Your task to perform on an android device: Open Android settings Image 0: 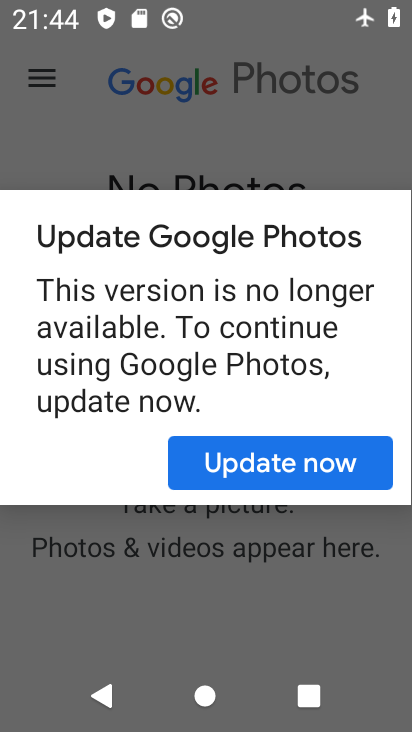
Step 0: press home button
Your task to perform on an android device: Open Android settings Image 1: 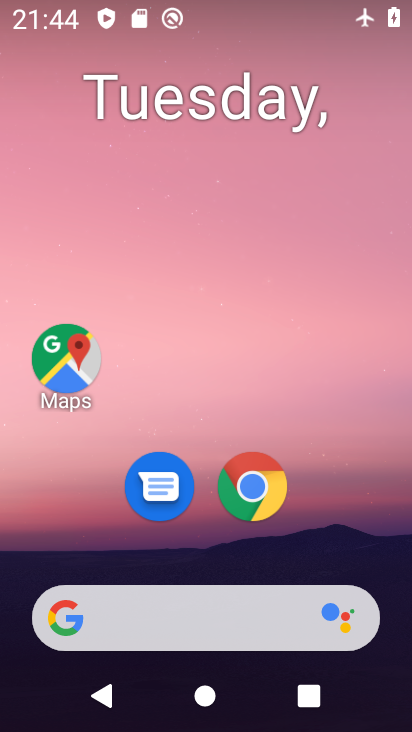
Step 1: drag from (374, 549) to (361, 160)
Your task to perform on an android device: Open Android settings Image 2: 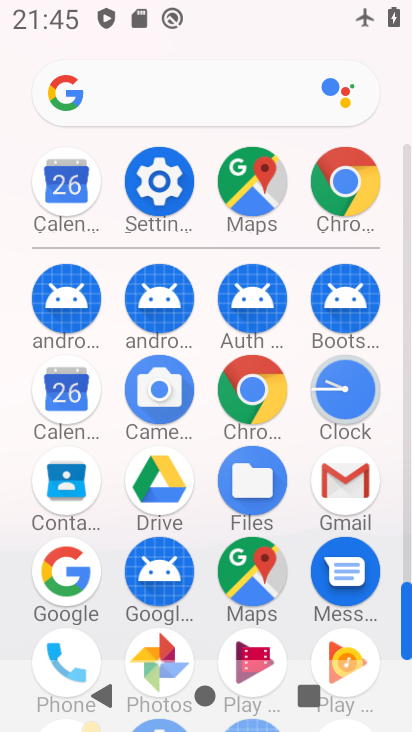
Step 2: click (162, 186)
Your task to perform on an android device: Open Android settings Image 3: 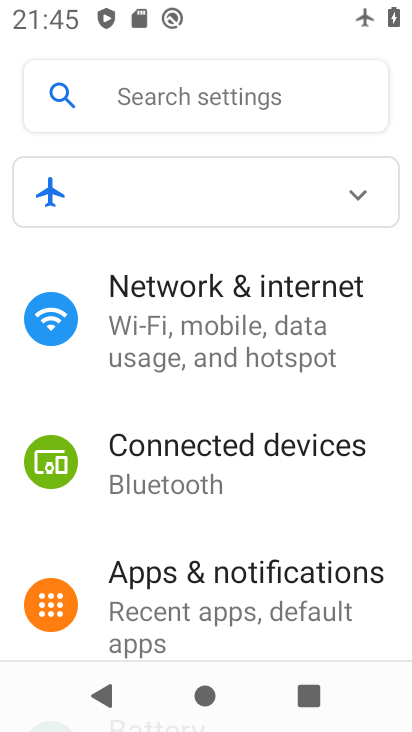
Step 3: drag from (391, 409) to (390, 368)
Your task to perform on an android device: Open Android settings Image 4: 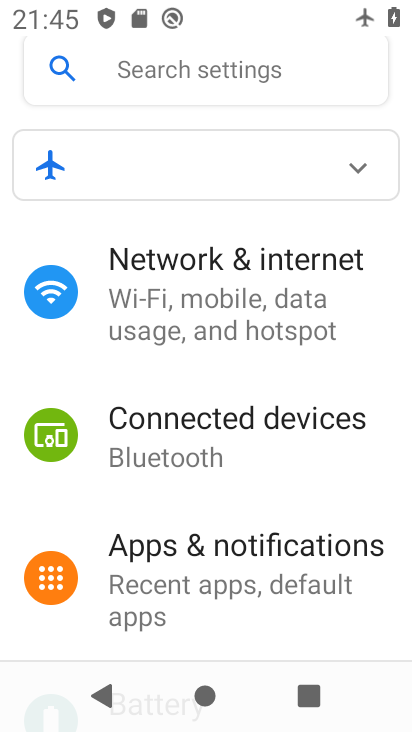
Step 4: drag from (385, 429) to (385, 373)
Your task to perform on an android device: Open Android settings Image 5: 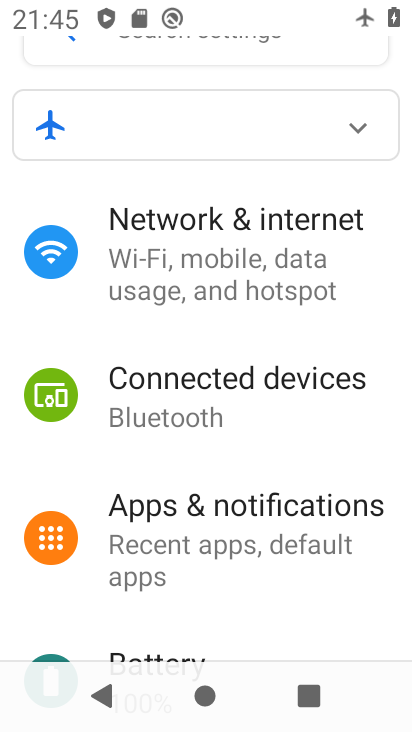
Step 5: drag from (375, 424) to (381, 371)
Your task to perform on an android device: Open Android settings Image 6: 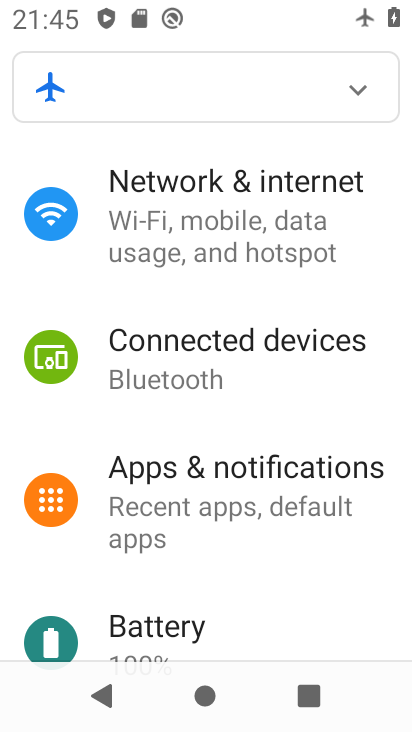
Step 6: drag from (372, 406) to (372, 356)
Your task to perform on an android device: Open Android settings Image 7: 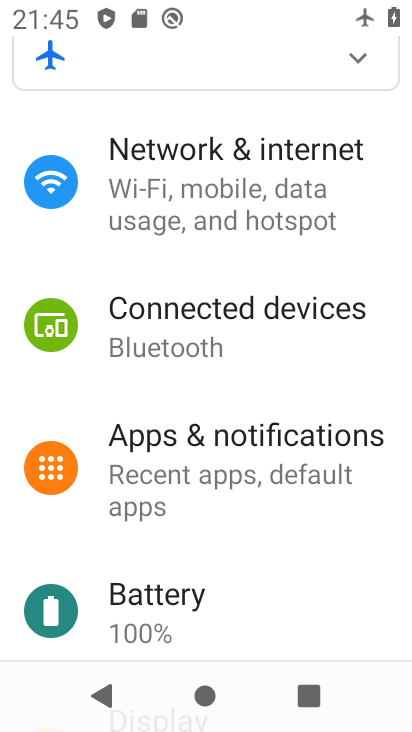
Step 7: drag from (376, 460) to (381, 400)
Your task to perform on an android device: Open Android settings Image 8: 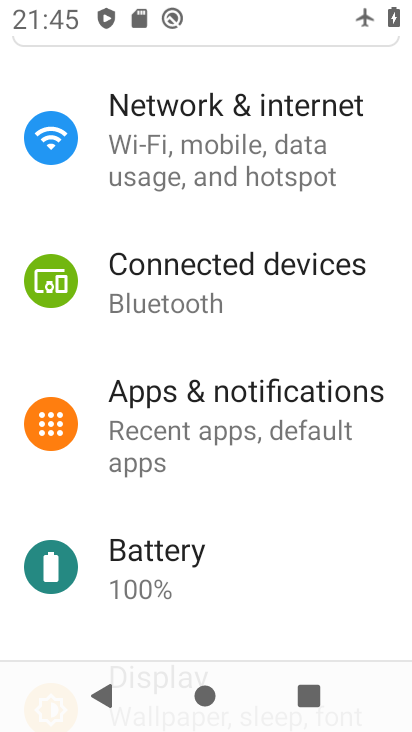
Step 8: drag from (368, 442) to (371, 390)
Your task to perform on an android device: Open Android settings Image 9: 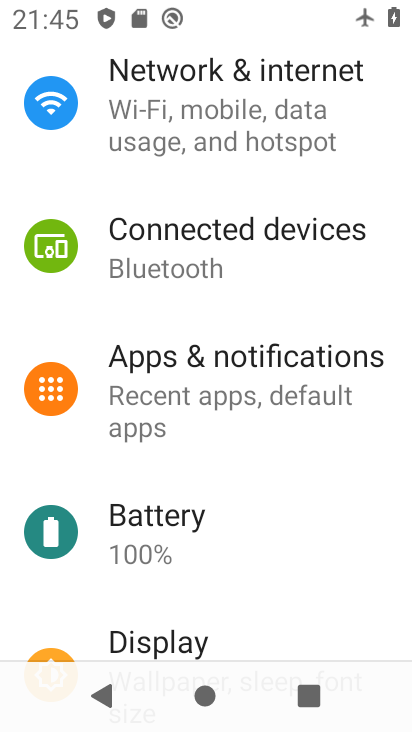
Step 9: drag from (353, 454) to (358, 391)
Your task to perform on an android device: Open Android settings Image 10: 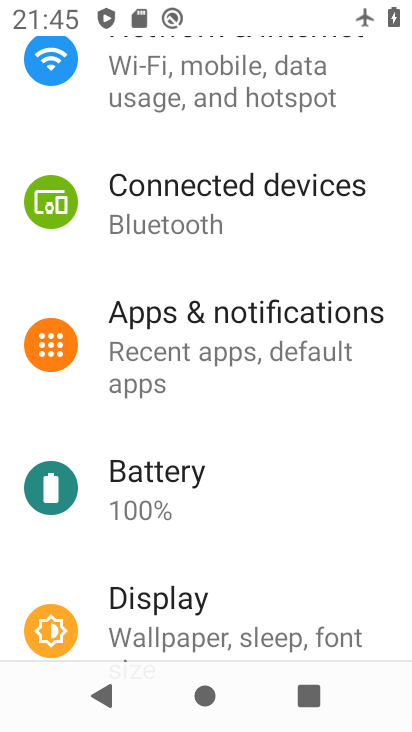
Step 10: drag from (356, 452) to (357, 385)
Your task to perform on an android device: Open Android settings Image 11: 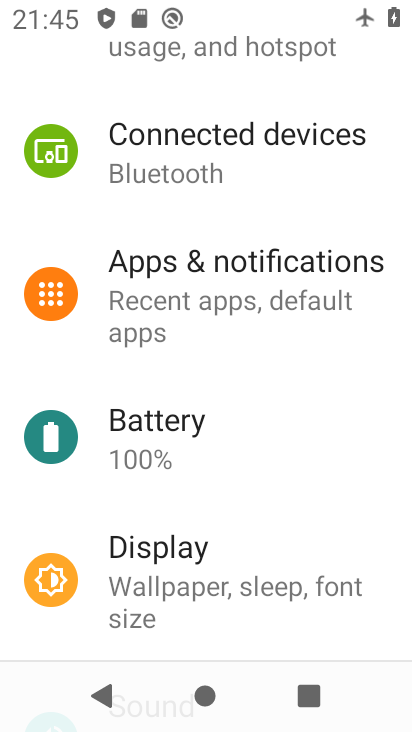
Step 11: drag from (352, 453) to (356, 382)
Your task to perform on an android device: Open Android settings Image 12: 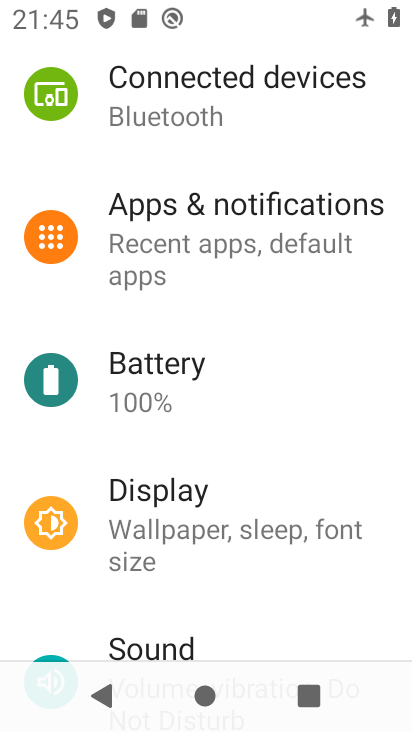
Step 12: drag from (342, 460) to (344, 405)
Your task to perform on an android device: Open Android settings Image 13: 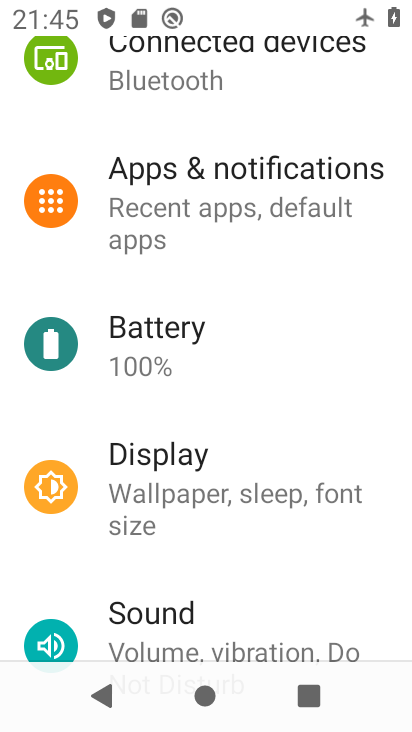
Step 13: drag from (327, 537) to (328, 467)
Your task to perform on an android device: Open Android settings Image 14: 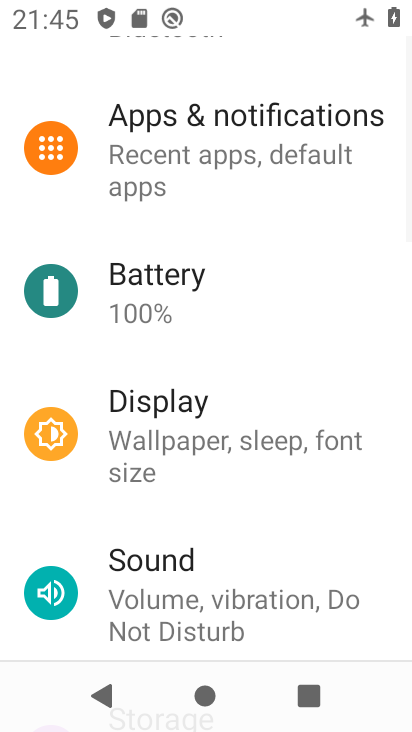
Step 14: drag from (314, 513) to (323, 445)
Your task to perform on an android device: Open Android settings Image 15: 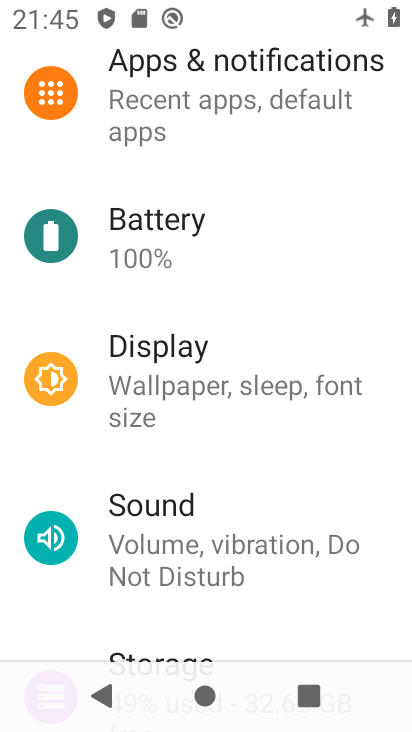
Step 15: drag from (317, 505) to (320, 438)
Your task to perform on an android device: Open Android settings Image 16: 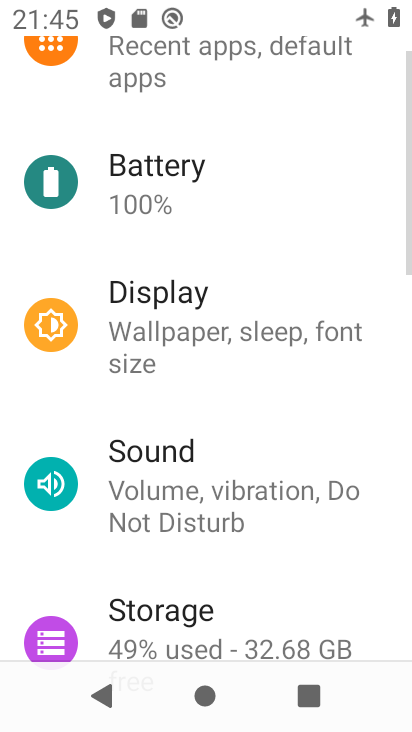
Step 16: drag from (321, 550) to (327, 473)
Your task to perform on an android device: Open Android settings Image 17: 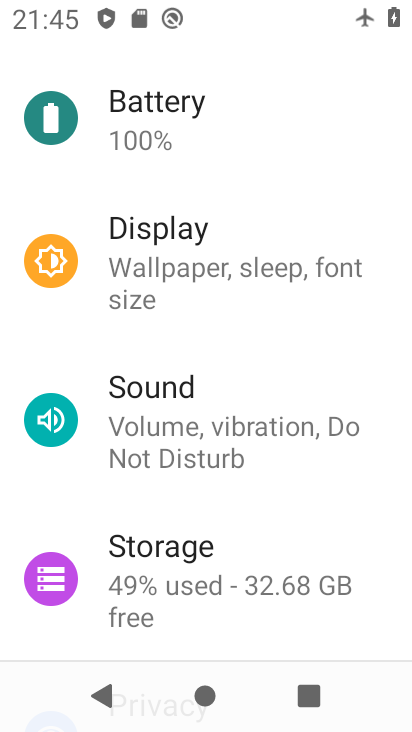
Step 17: drag from (383, 529) to (383, 461)
Your task to perform on an android device: Open Android settings Image 18: 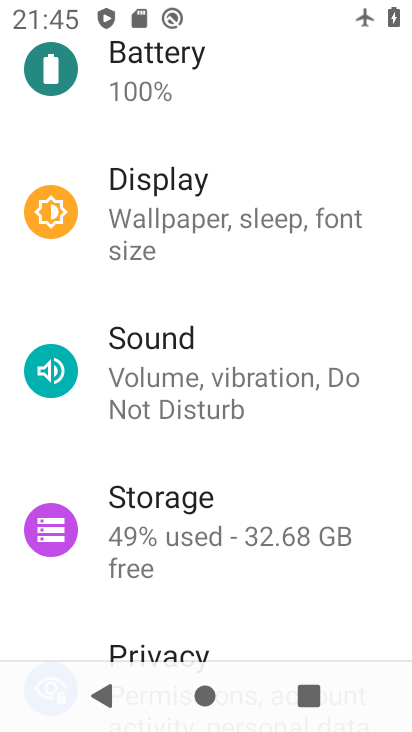
Step 18: drag from (373, 596) to (369, 509)
Your task to perform on an android device: Open Android settings Image 19: 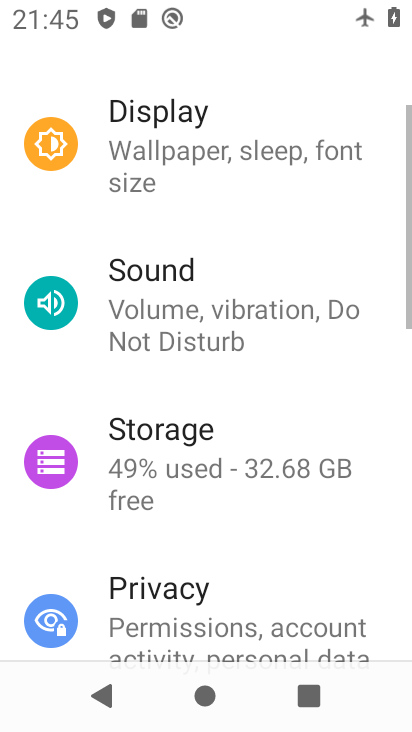
Step 19: drag from (354, 578) to (359, 481)
Your task to perform on an android device: Open Android settings Image 20: 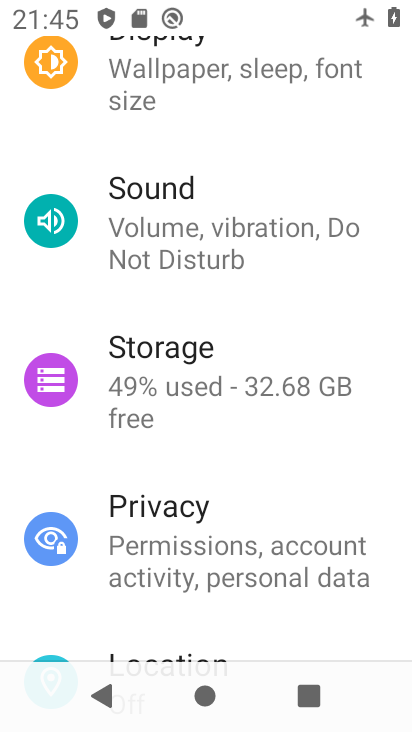
Step 20: drag from (372, 604) to (371, 509)
Your task to perform on an android device: Open Android settings Image 21: 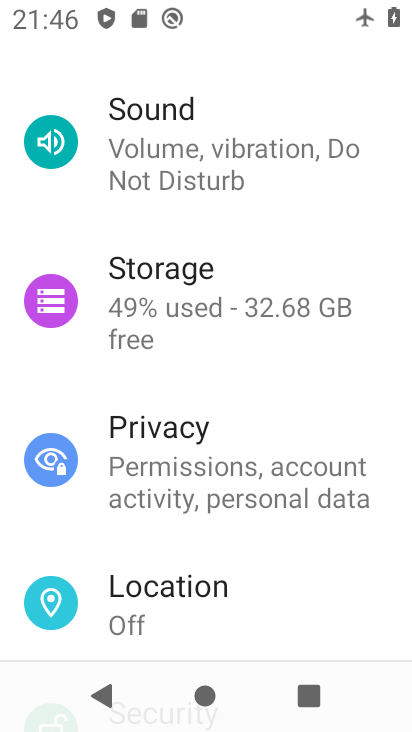
Step 21: drag from (350, 578) to (353, 525)
Your task to perform on an android device: Open Android settings Image 22: 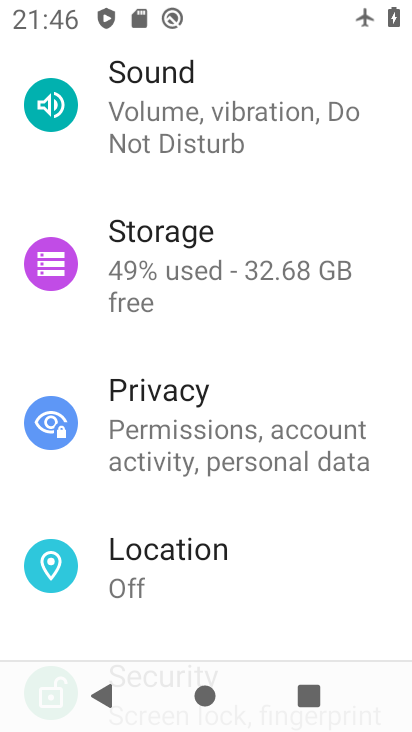
Step 22: drag from (334, 571) to (352, 488)
Your task to perform on an android device: Open Android settings Image 23: 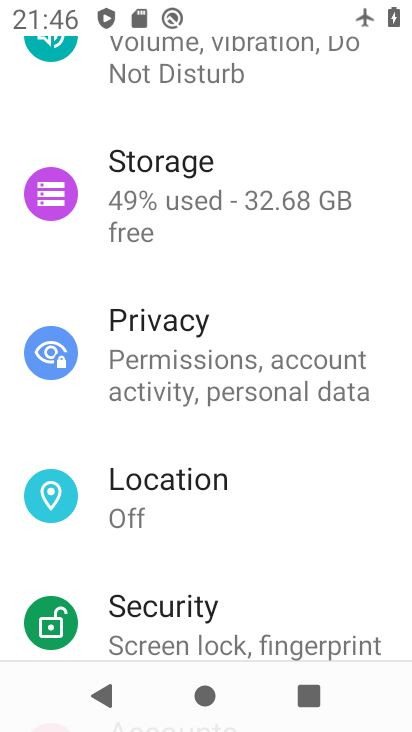
Step 23: drag from (347, 603) to (357, 498)
Your task to perform on an android device: Open Android settings Image 24: 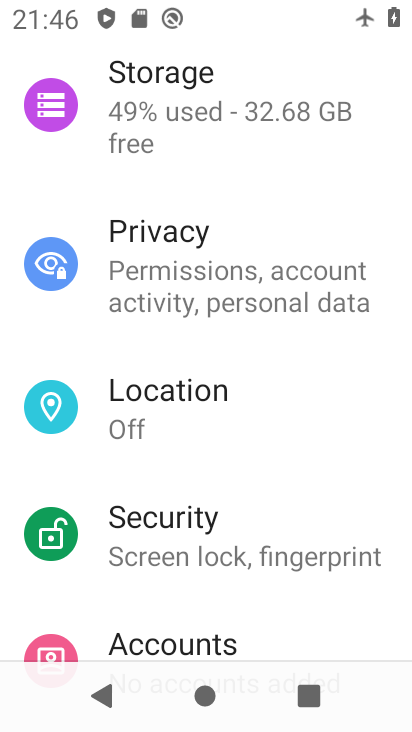
Step 24: drag from (358, 498) to (357, 419)
Your task to perform on an android device: Open Android settings Image 25: 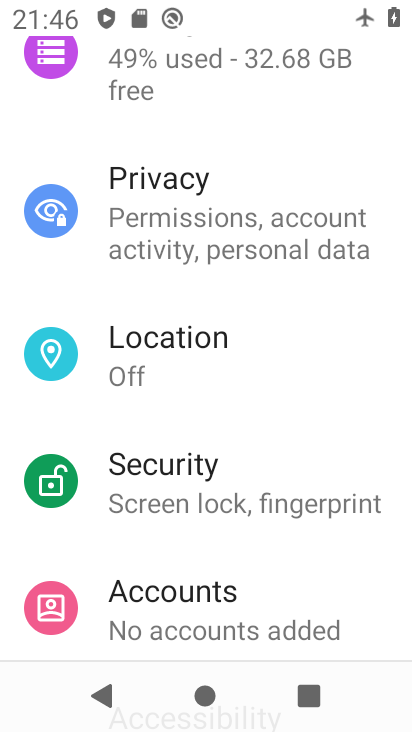
Step 25: drag from (333, 534) to (366, 337)
Your task to perform on an android device: Open Android settings Image 26: 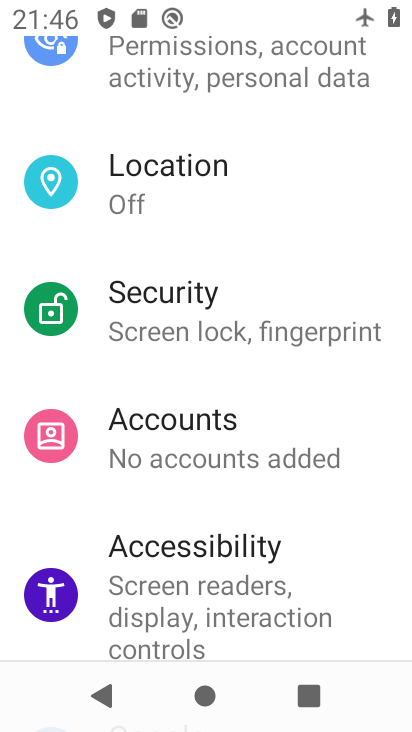
Step 26: drag from (341, 520) to (369, 377)
Your task to perform on an android device: Open Android settings Image 27: 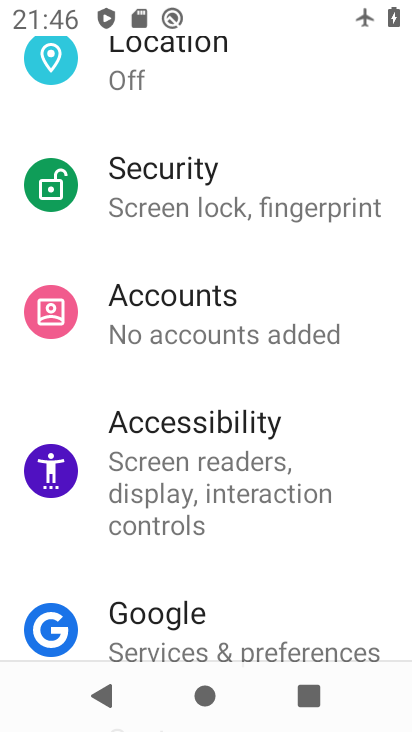
Step 27: drag from (341, 501) to (365, 388)
Your task to perform on an android device: Open Android settings Image 28: 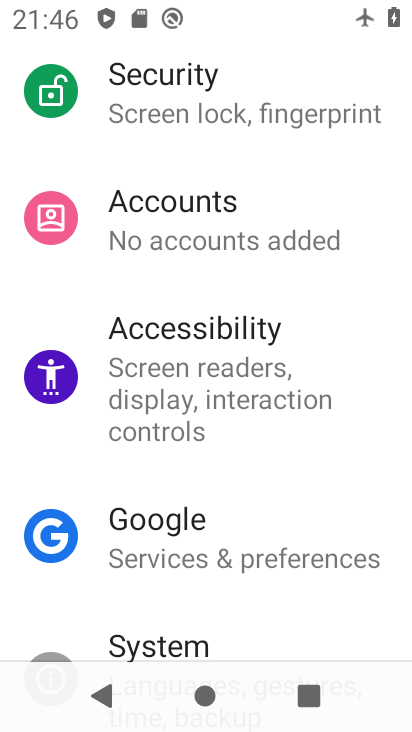
Step 28: drag from (341, 488) to (368, 315)
Your task to perform on an android device: Open Android settings Image 29: 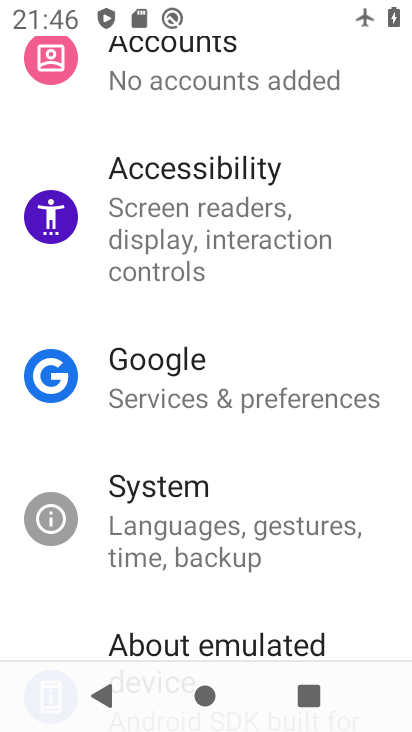
Step 29: click (324, 491)
Your task to perform on an android device: Open Android settings Image 30: 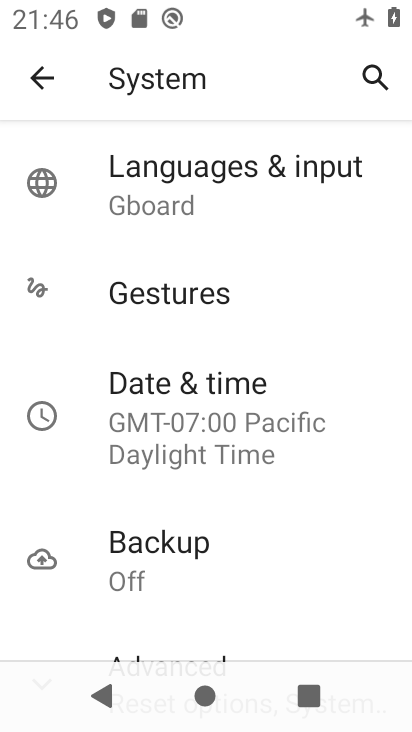
Step 30: drag from (323, 534) to (352, 359)
Your task to perform on an android device: Open Android settings Image 31: 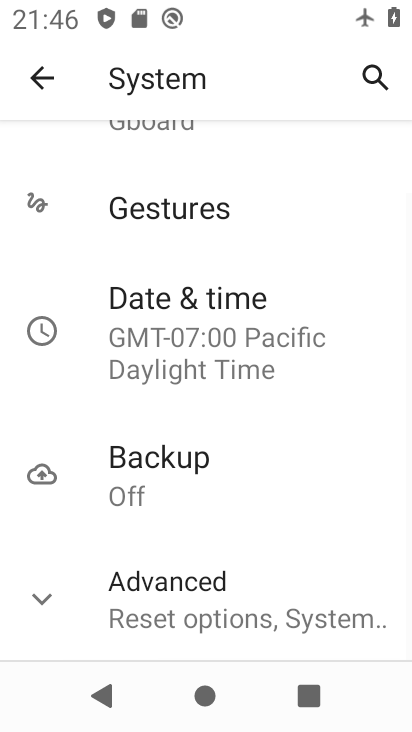
Step 31: click (286, 543)
Your task to perform on an android device: Open Android settings Image 32: 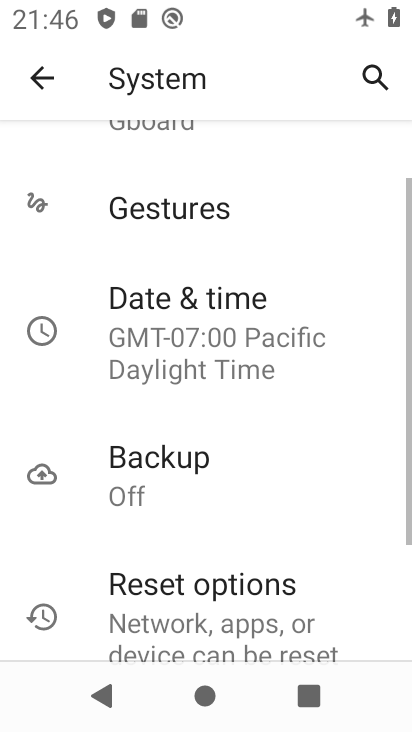
Step 32: task complete